Your task to perform on an android device: toggle show notifications on the lock screen Image 0: 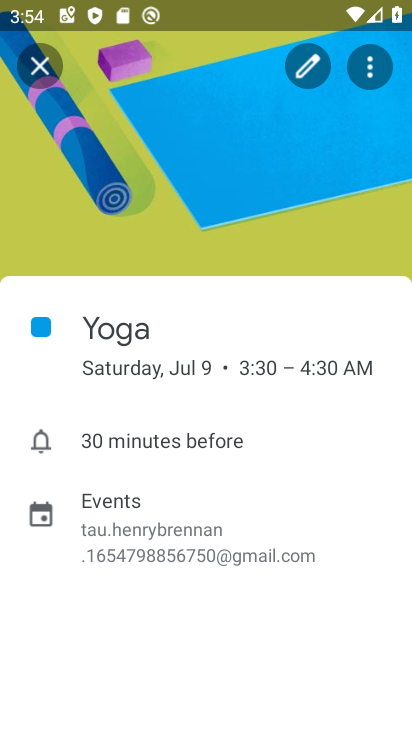
Step 0: press home button
Your task to perform on an android device: toggle show notifications on the lock screen Image 1: 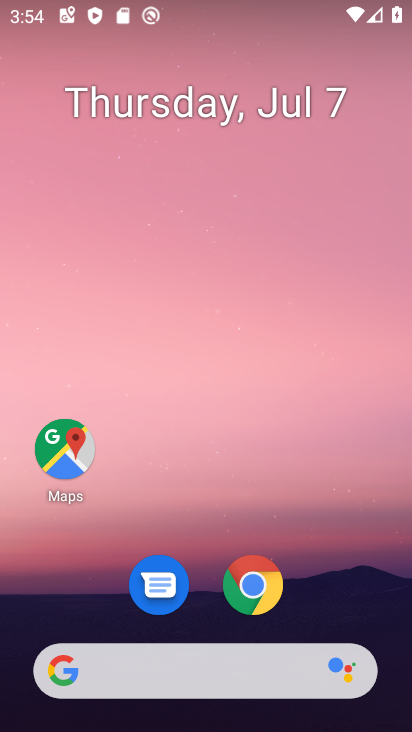
Step 1: drag from (274, 530) to (277, 35)
Your task to perform on an android device: toggle show notifications on the lock screen Image 2: 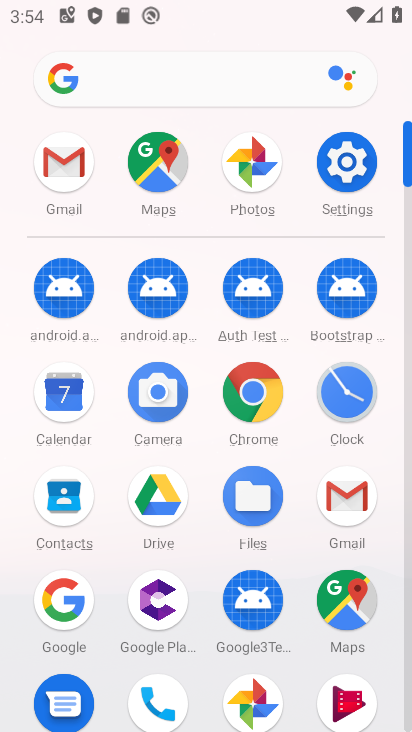
Step 2: click (339, 173)
Your task to perform on an android device: toggle show notifications on the lock screen Image 3: 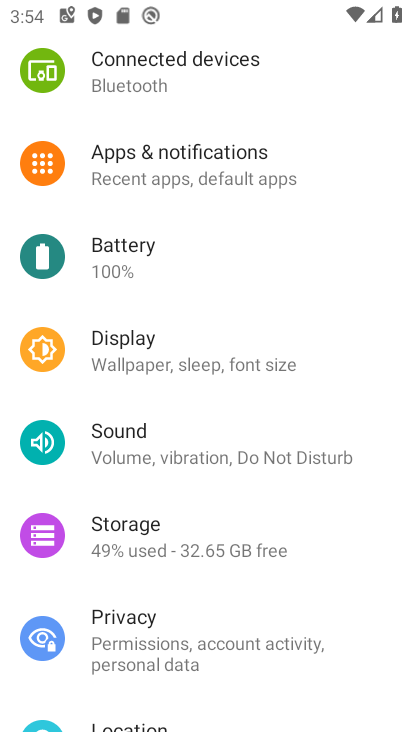
Step 3: click (234, 170)
Your task to perform on an android device: toggle show notifications on the lock screen Image 4: 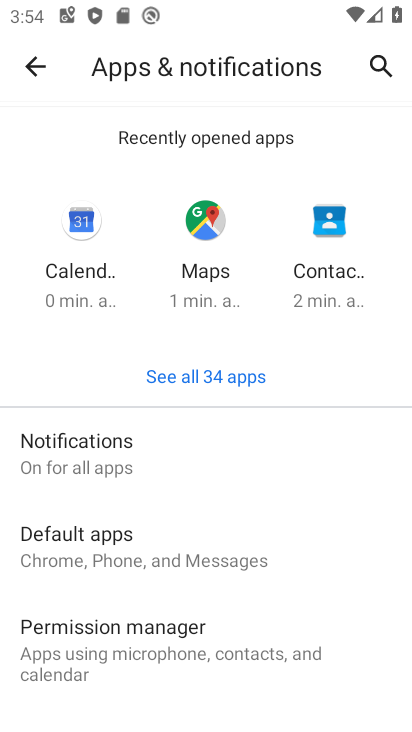
Step 4: click (119, 447)
Your task to perform on an android device: toggle show notifications on the lock screen Image 5: 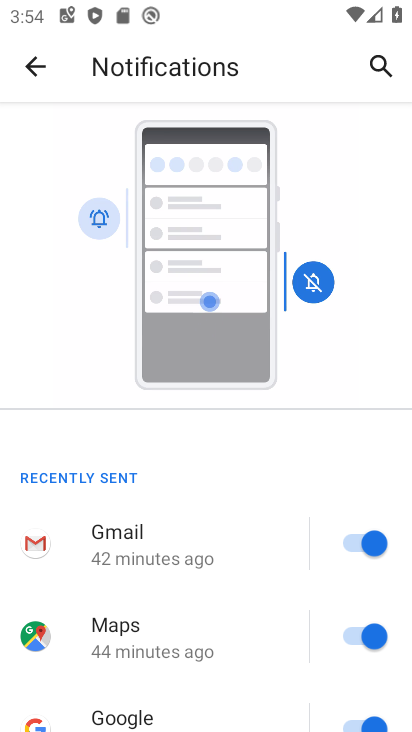
Step 5: drag from (190, 639) to (210, 113)
Your task to perform on an android device: toggle show notifications on the lock screen Image 6: 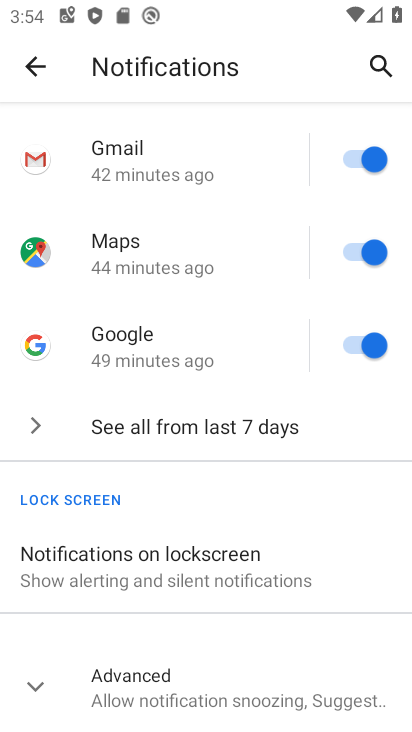
Step 6: click (191, 568)
Your task to perform on an android device: toggle show notifications on the lock screen Image 7: 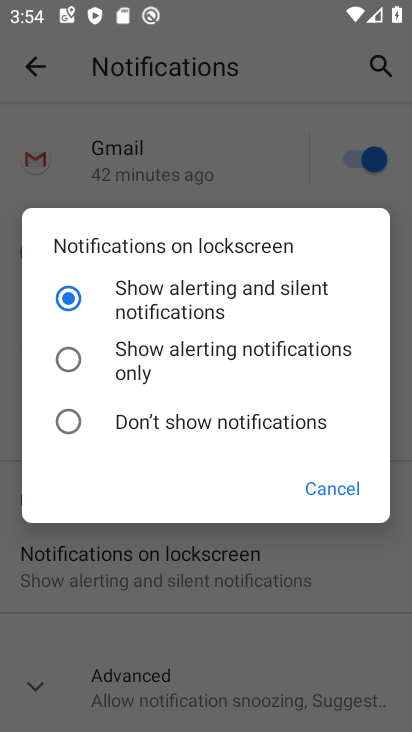
Step 7: click (67, 399)
Your task to perform on an android device: toggle show notifications on the lock screen Image 8: 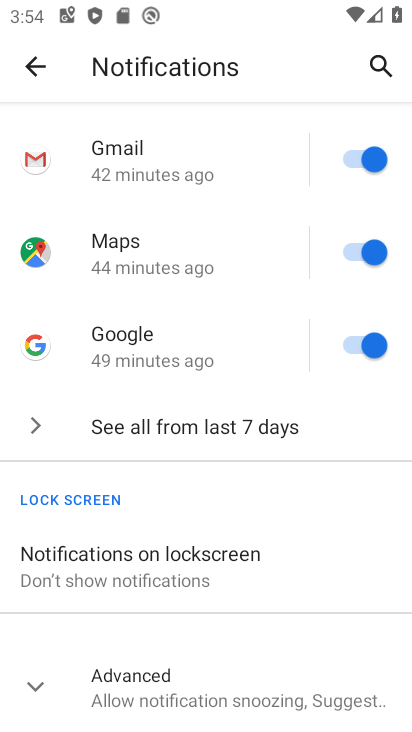
Step 8: task complete